Your task to perform on an android device: Open accessibility settings Image 0: 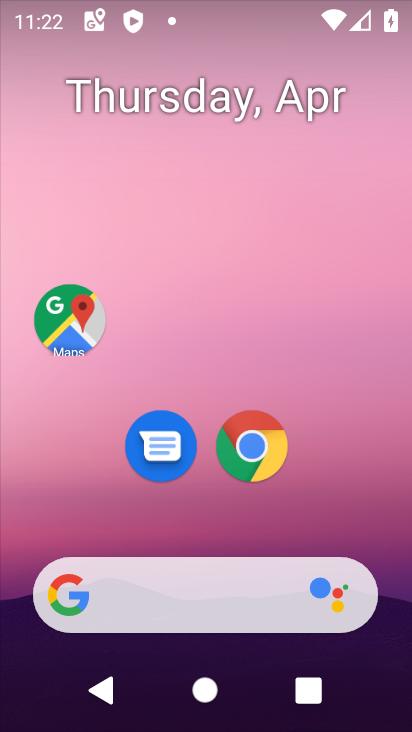
Step 0: click (272, 459)
Your task to perform on an android device: Open accessibility settings Image 1: 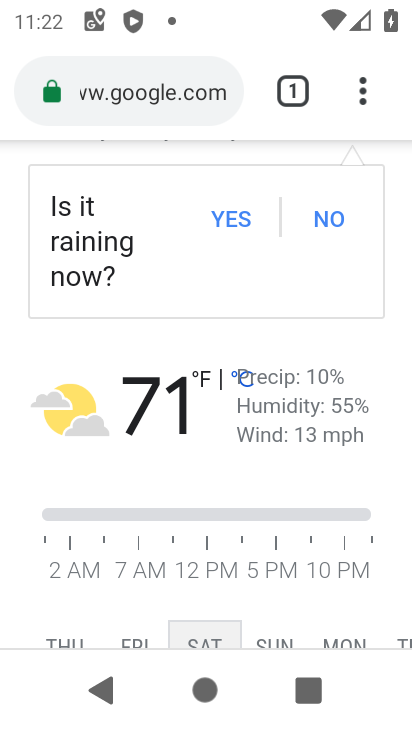
Step 1: click (363, 118)
Your task to perform on an android device: Open accessibility settings Image 2: 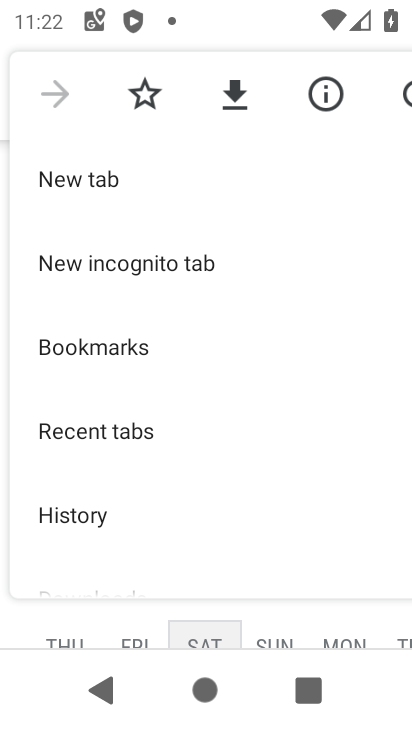
Step 2: drag from (274, 561) to (271, 148)
Your task to perform on an android device: Open accessibility settings Image 3: 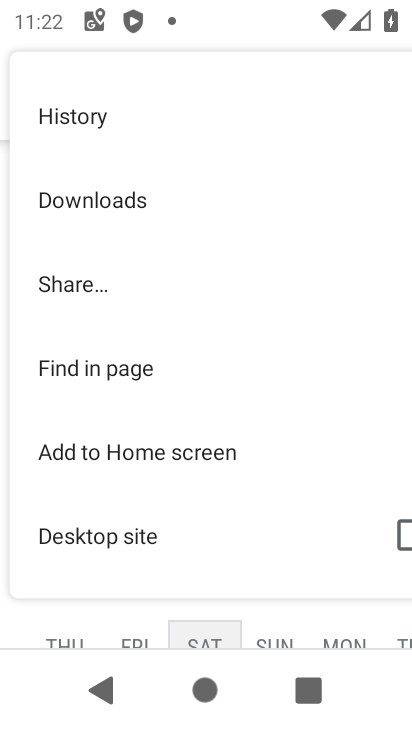
Step 3: drag from (275, 478) to (259, 155)
Your task to perform on an android device: Open accessibility settings Image 4: 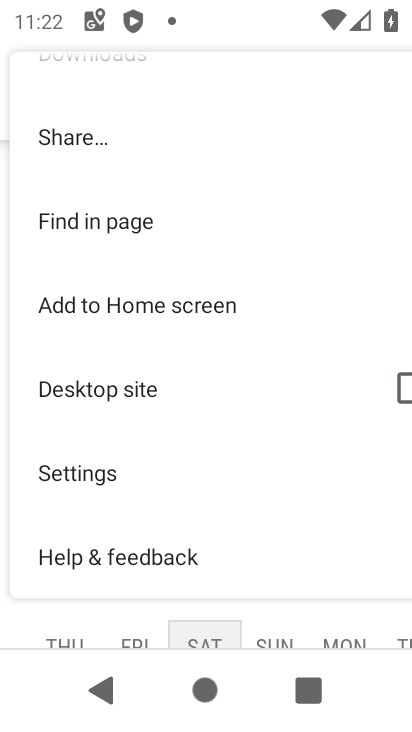
Step 4: click (242, 454)
Your task to perform on an android device: Open accessibility settings Image 5: 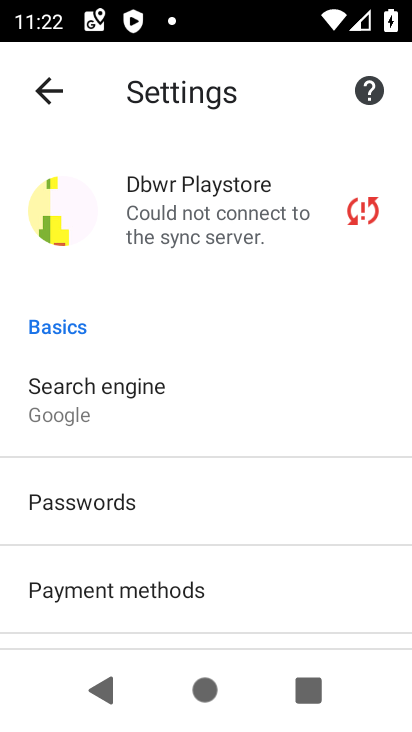
Step 5: drag from (291, 602) to (208, 248)
Your task to perform on an android device: Open accessibility settings Image 6: 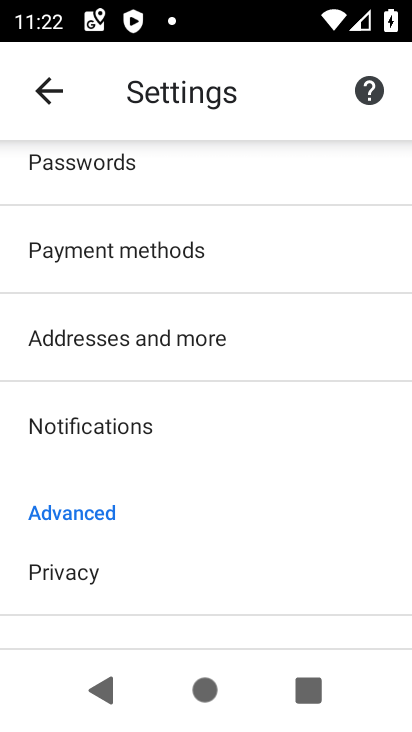
Step 6: drag from (240, 533) to (216, 177)
Your task to perform on an android device: Open accessibility settings Image 7: 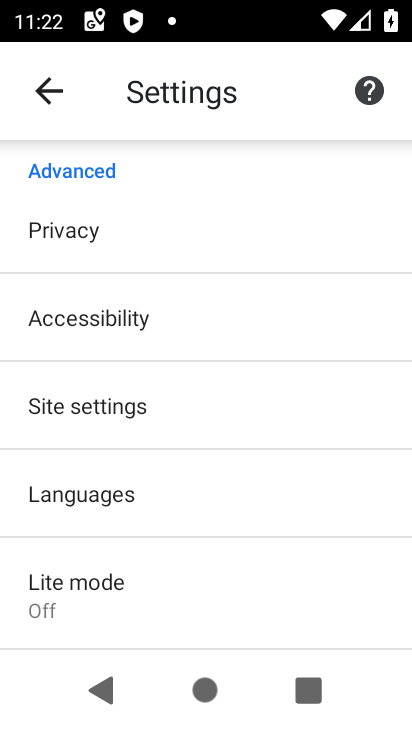
Step 7: click (242, 309)
Your task to perform on an android device: Open accessibility settings Image 8: 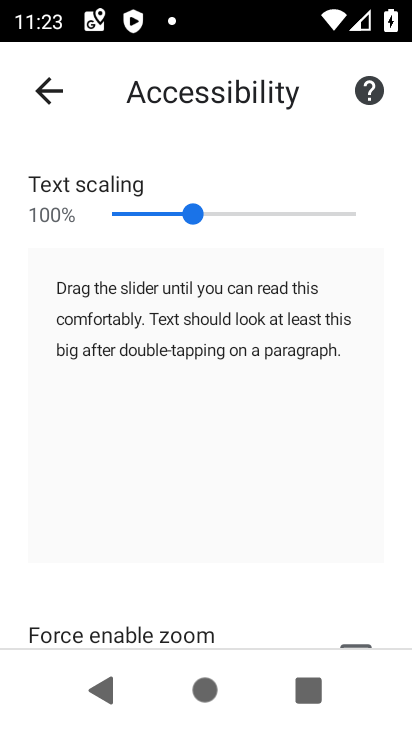
Step 8: task complete